Your task to perform on an android device: toggle wifi Image 0: 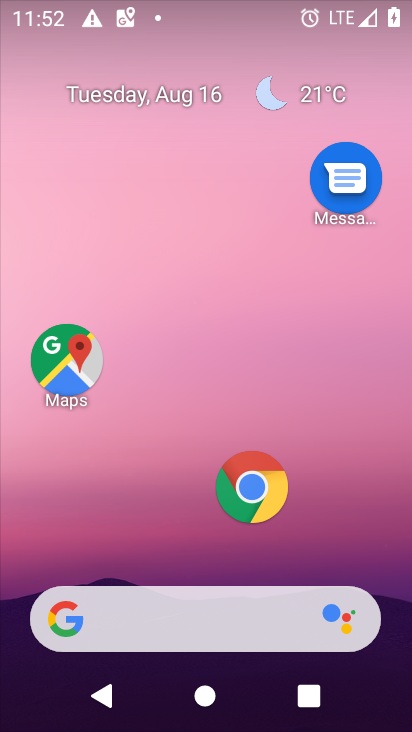
Step 0: drag from (146, 22) to (227, 554)
Your task to perform on an android device: toggle wifi Image 1: 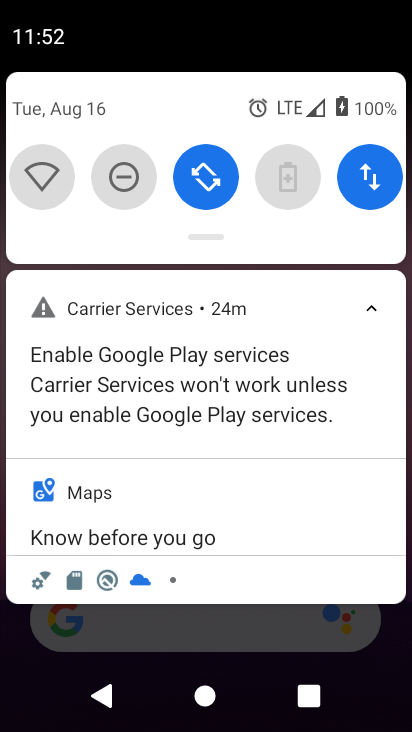
Step 1: click (47, 179)
Your task to perform on an android device: toggle wifi Image 2: 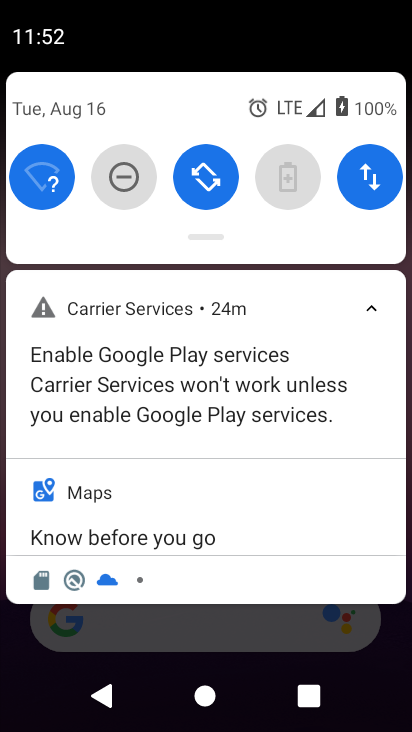
Step 2: task complete